Your task to perform on an android device: clear all cookies in the chrome app Image 0: 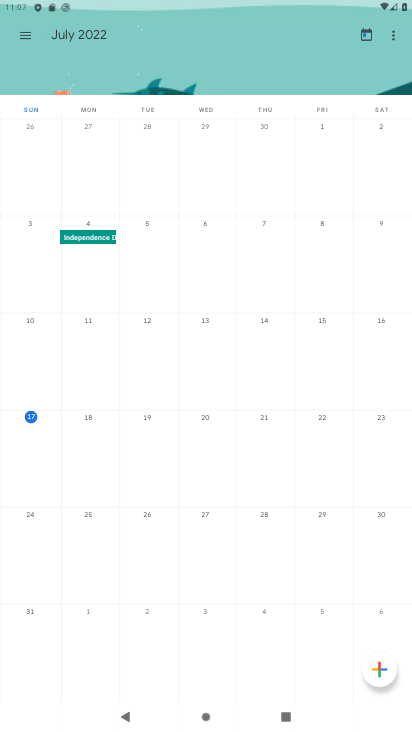
Step 0: drag from (401, 696) to (345, 411)
Your task to perform on an android device: clear all cookies in the chrome app Image 1: 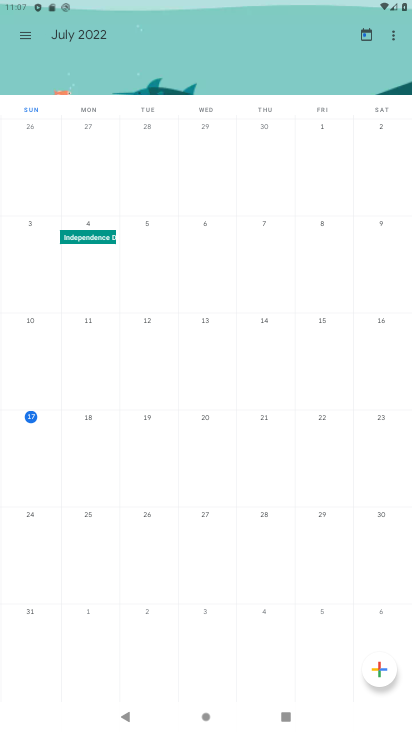
Step 1: press home button
Your task to perform on an android device: clear all cookies in the chrome app Image 2: 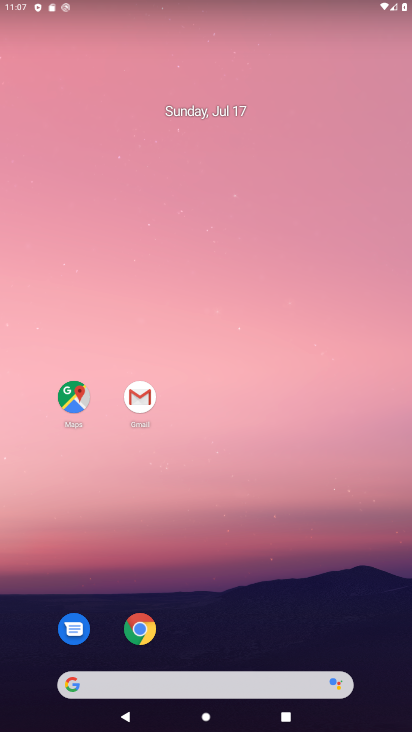
Step 2: click (138, 629)
Your task to perform on an android device: clear all cookies in the chrome app Image 3: 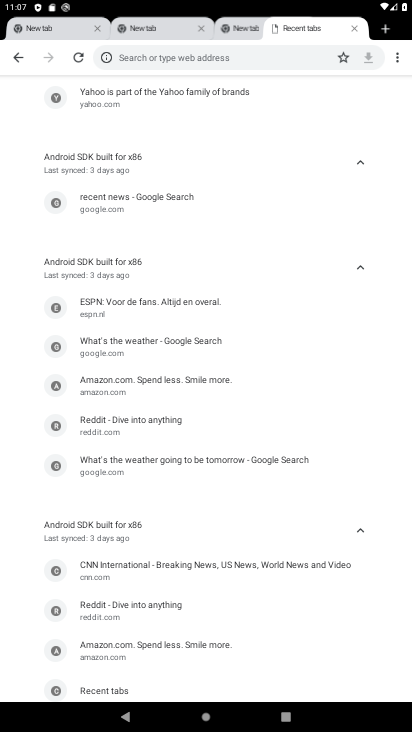
Step 3: click (397, 58)
Your task to perform on an android device: clear all cookies in the chrome app Image 4: 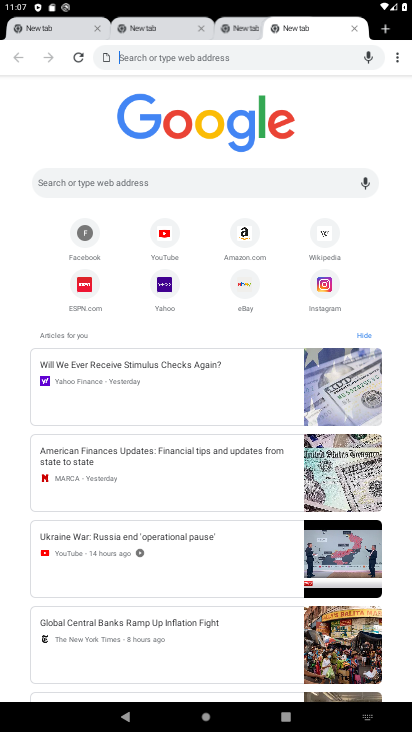
Step 4: click (397, 59)
Your task to perform on an android device: clear all cookies in the chrome app Image 5: 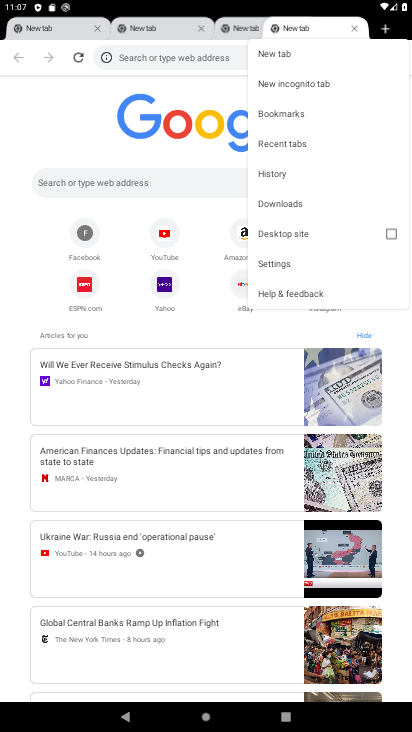
Step 5: click (264, 174)
Your task to perform on an android device: clear all cookies in the chrome app Image 6: 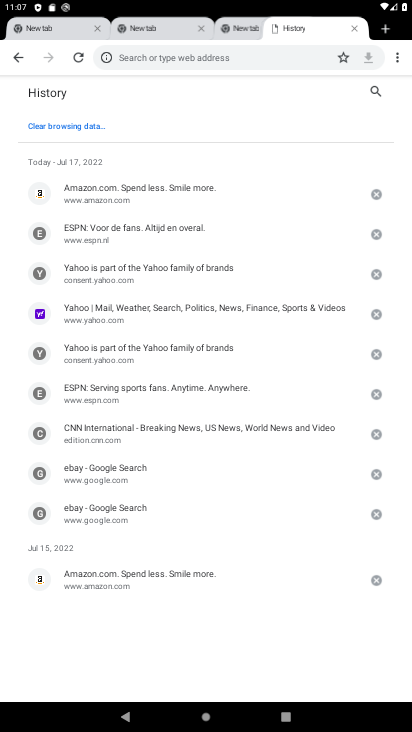
Step 6: click (50, 124)
Your task to perform on an android device: clear all cookies in the chrome app Image 7: 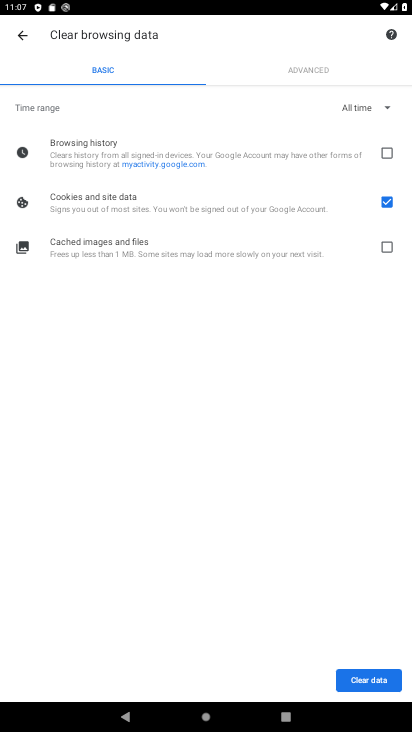
Step 7: click (367, 680)
Your task to perform on an android device: clear all cookies in the chrome app Image 8: 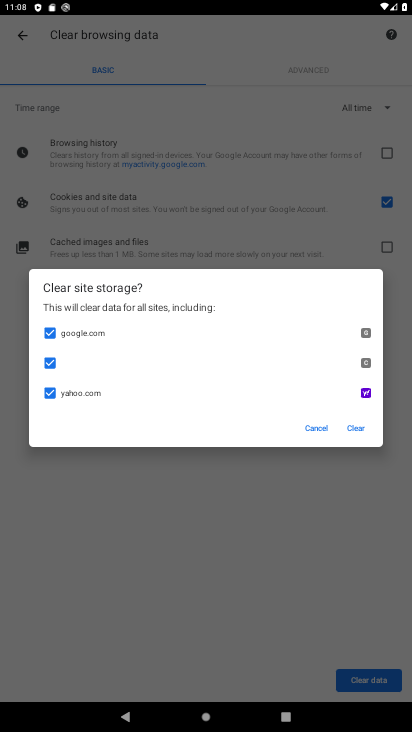
Step 8: click (350, 429)
Your task to perform on an android device: clear all cookies in the chrome app Image 9: 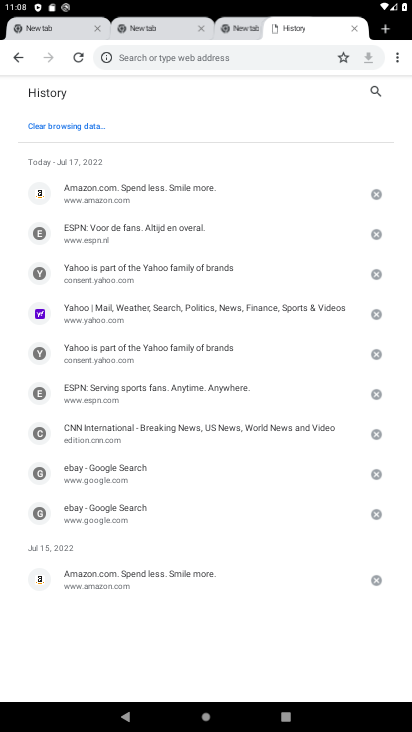
Step 9: click (57, 127)
Your task to perform on an android device: clear all cookies in the chrome app Image 10: 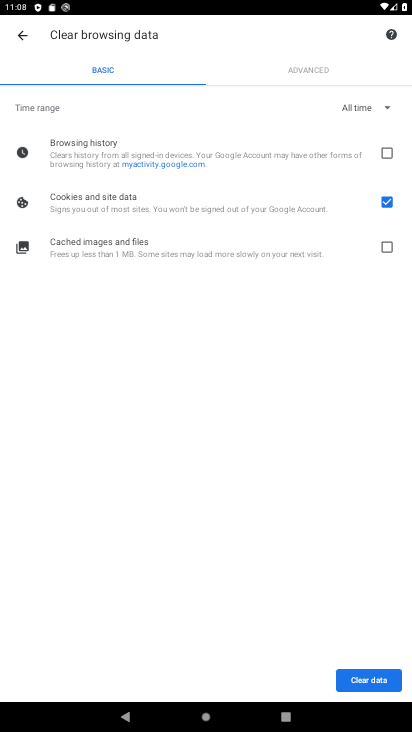
Step 10: click (373, 688)
Your task to perform on an android device: clear all cookies in the chrome app Image 11: 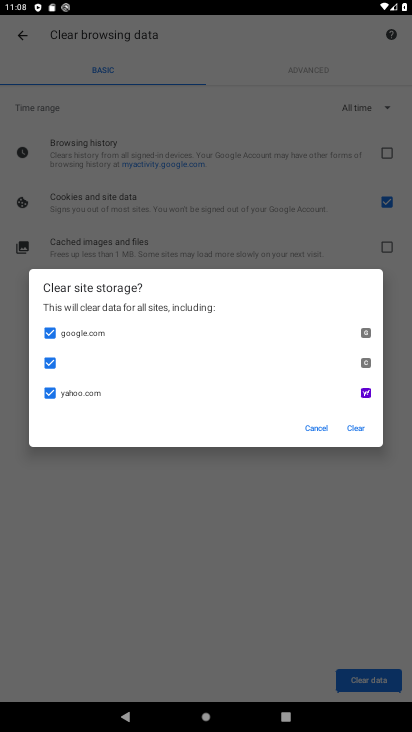
Step 11: click (320, 427)
Your task to perform on an android device: clear all cookies in the chrome app Image 12: 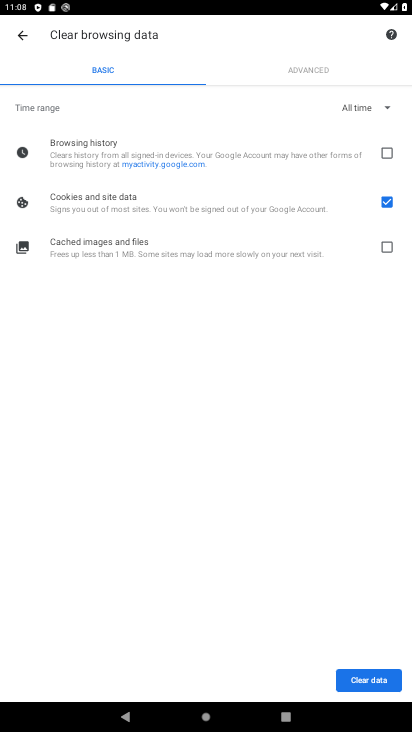
Step 12: click (378, 154)
Your task to perform on an android device: clear all cookies in the chrome app Image 13: 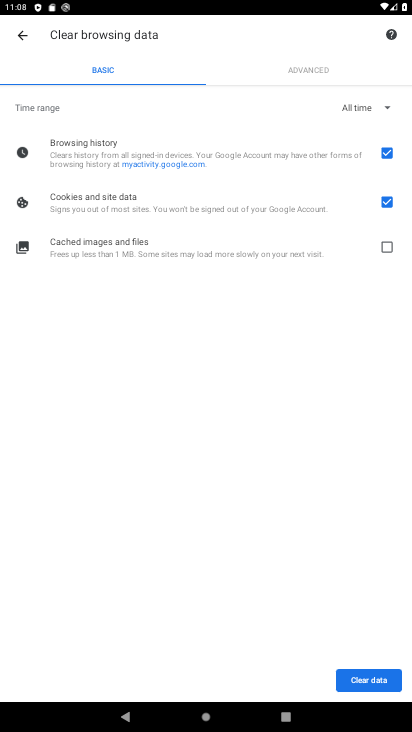
Step 13: click (386, 246)
Your task to perform on an android device: clear all cookies in the chrome app Image 14: 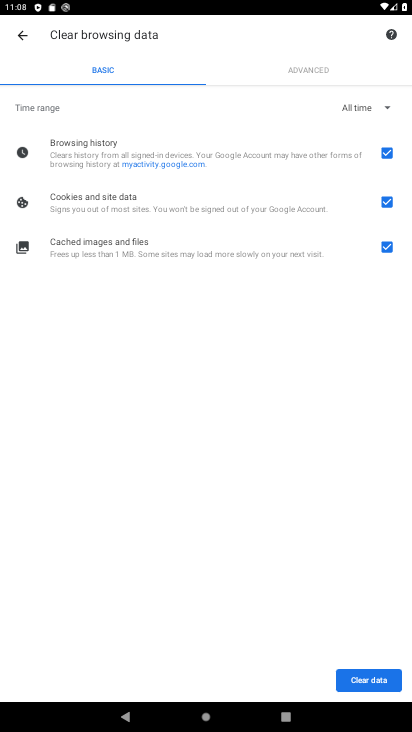
Step 14: click (357, 667)
Your task to perform on an android device: clear all cookies in the chrome app Image 15: 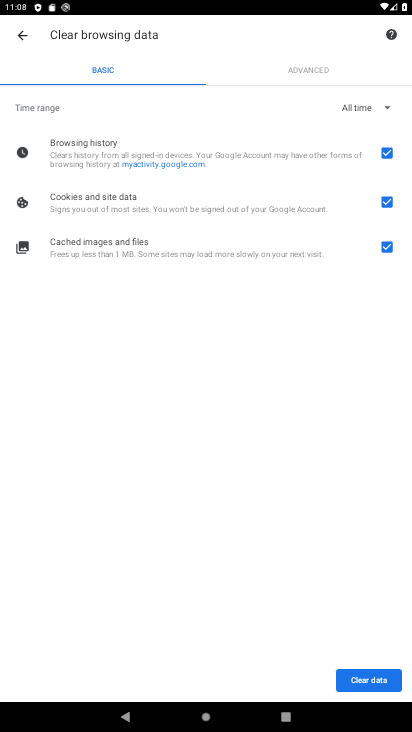
Step 15: click (355, 675)
Your task to perform on an android device: clear all cookies in the chrome app Image 16: 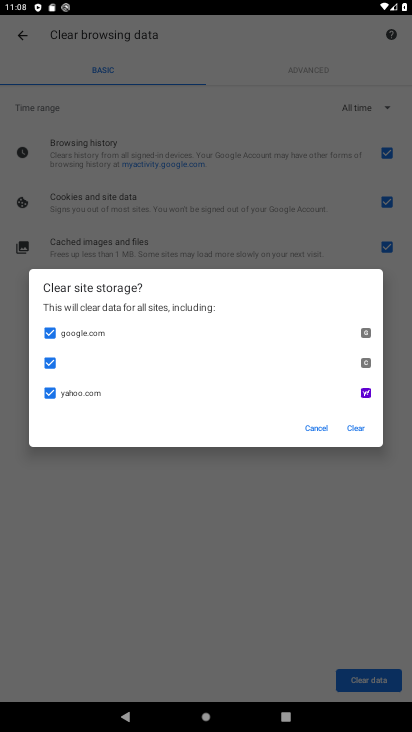
Step 16: click (358, 422)
Your task to perform on an android device: clear all cookies in the chrome app Image 17: 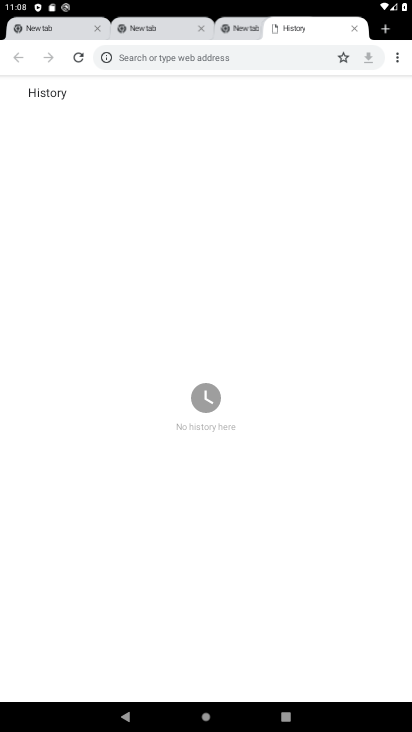
Step 17: task complete